Your task to perform on an android device: turn off priority inbox in the gmail app Image 0: 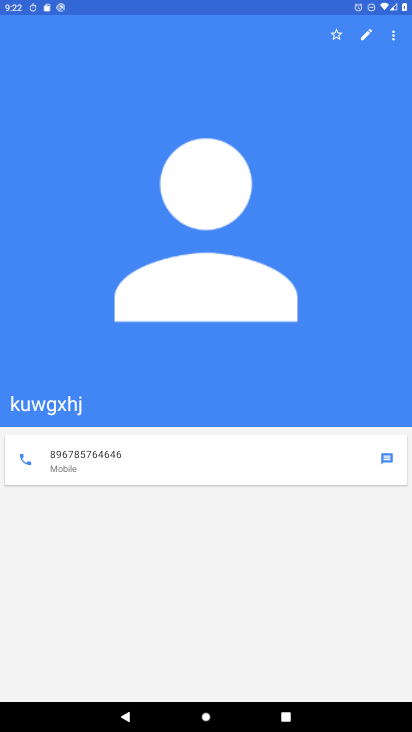
Step 0: press home button
Your task to perform on an android device: turn off priority inbox in the gmail app Image 1: 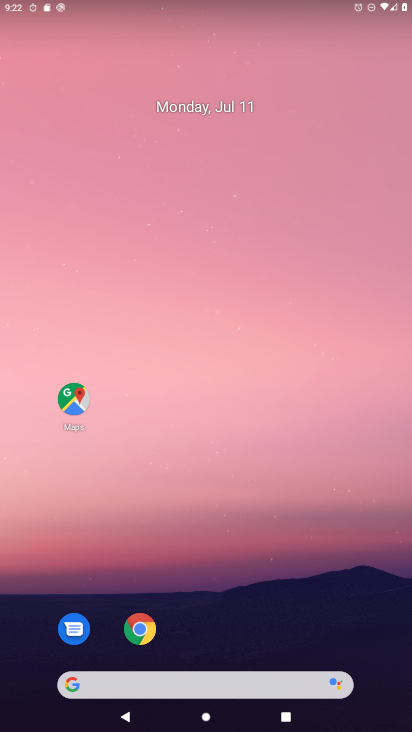
Step 1: drag from (223, 558) to (223, 150)
Your task to perform on an android device: turn off priority inbox in the gmail app Image 2: 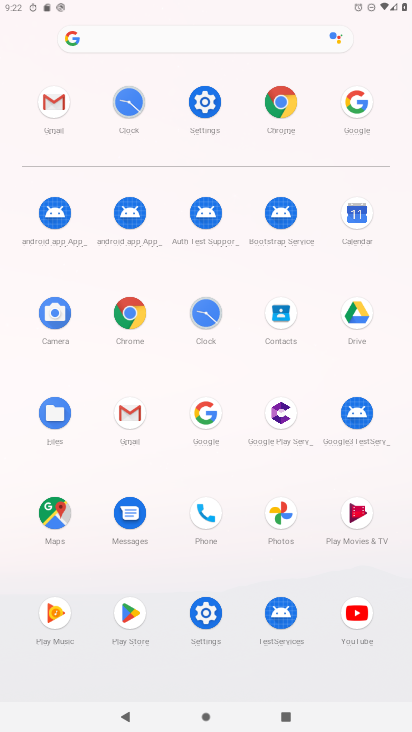
Step 2: click (59, 93)
Your task to perform on an android device: turn off priority inbox in the gmail app Image 3: 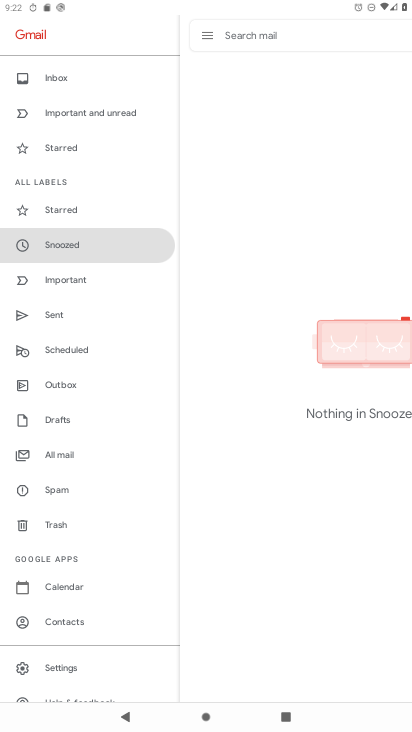
Step 3: click (62, 666)
Your task to perform on an android device: turn off priority inbox in the gmail app Image 4: 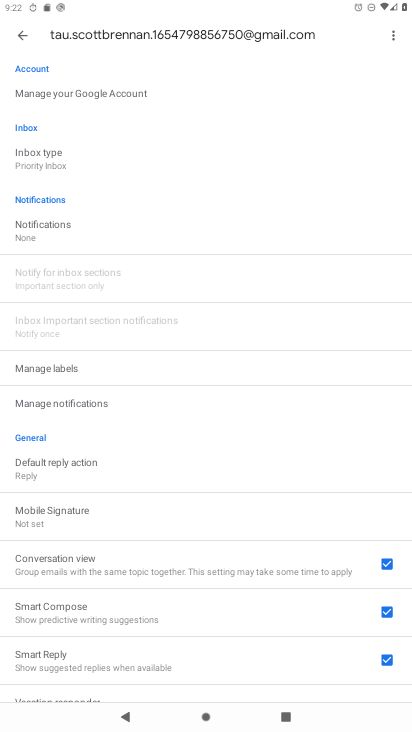
Step 4: click (49, 154)
Your task to perform on an android device: turn off priority inbox in the gmail app Image 5: 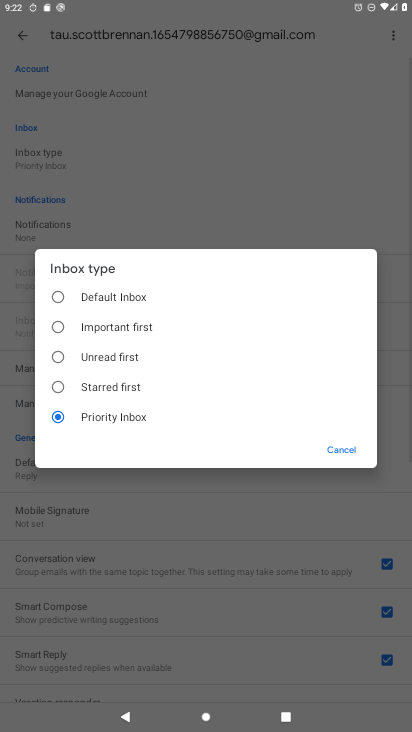
Step 5: click (56, 291)
Your task to perform on an android device: turn off priority inbox in the gmail app Image 6: 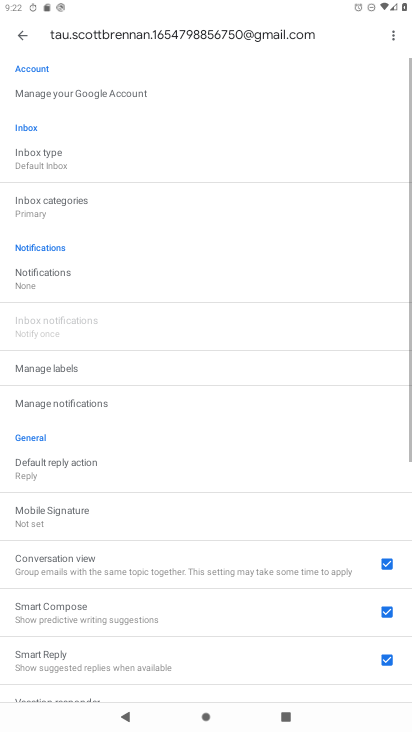
Step 6: task complete